Your task to perform on an android device: change the clock display to digital Image 0: 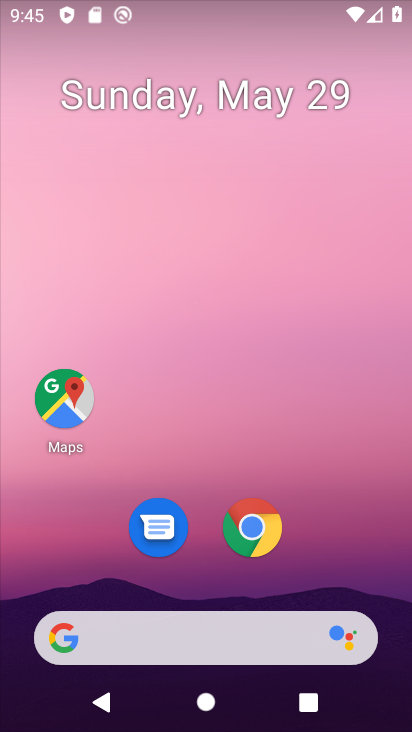
Step 0: drag from (328, 516) to (298, 70)
Your task to perform on an android device: change the clock display to digital Image 1: 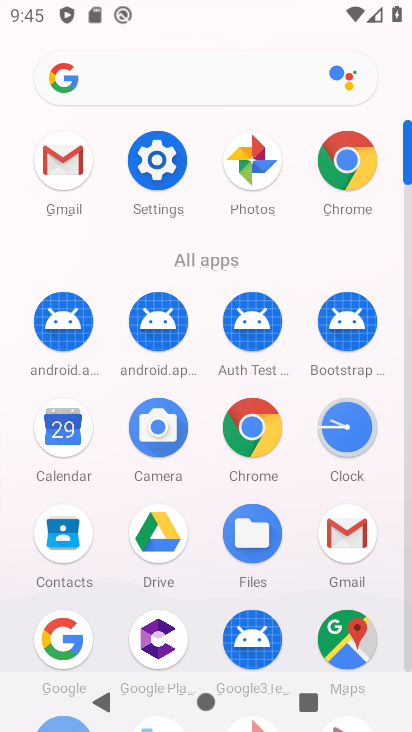
Step 1: click (354, 422)
Your task to perform on an android device: change the clock display to digital Image 2: 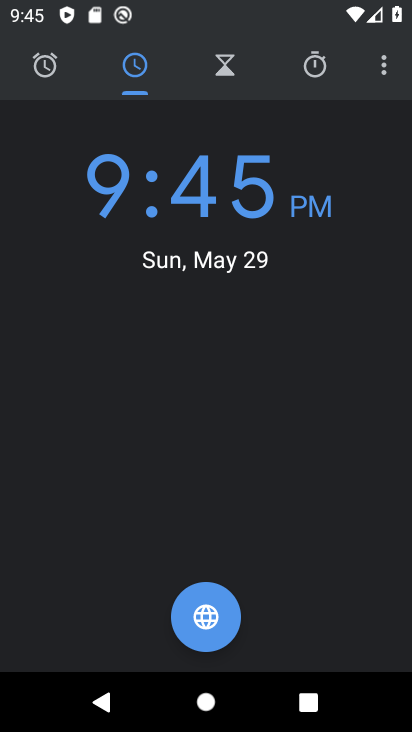
Step 2: click (379, 64)
Your task to perform on an android device: change the clock display to digital Image 3: 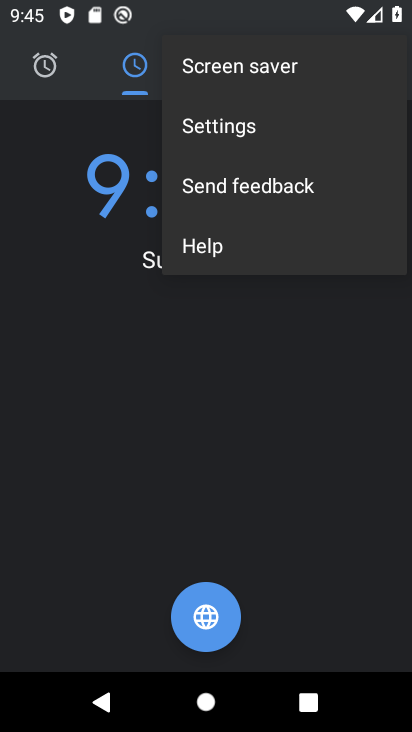
Step 3: click (287, 132)
Your task to perform on an android device: change the clock display to digital Image 4: 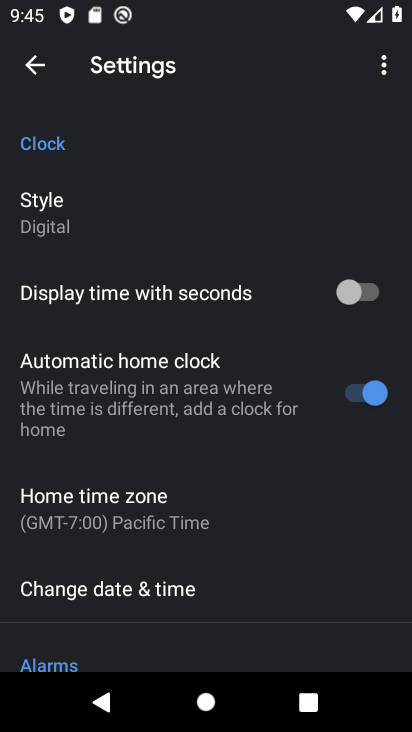
Step 4: click (54, 221)
Your task to perform on an android device: change the clock display to digital Image 5: 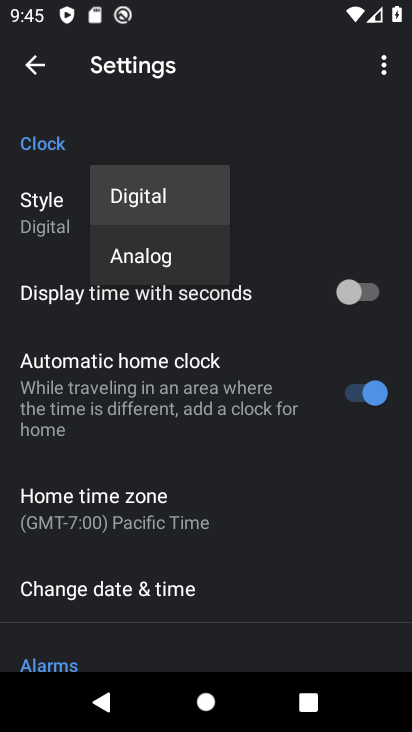
Step 5: task complete